Your task to perform on an android device: change the clock display to analog Image 0: 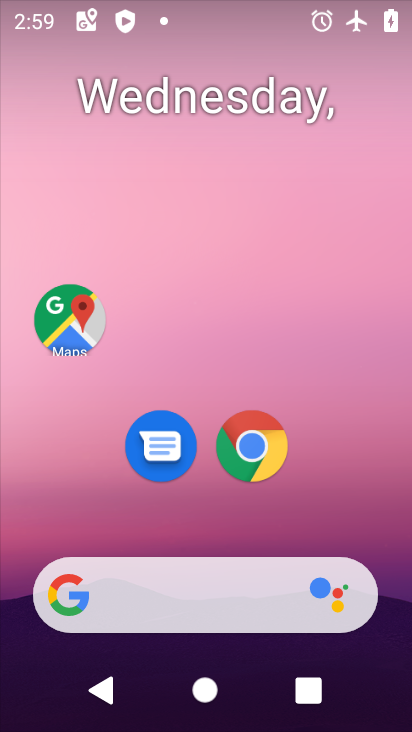
Step 0: drag from (182, 534) to (208, 258)
Your task to perform on an android device: change the clock display to analog Image 1: 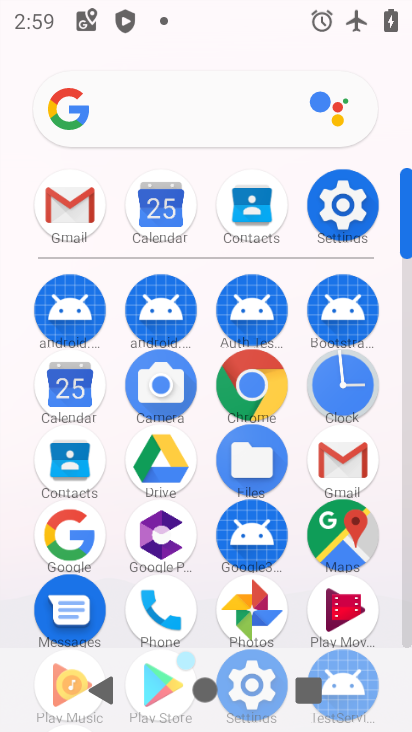
Step 1: click (356, 382)
Your task to perform on an android device: change the clock display to analog Image 2: 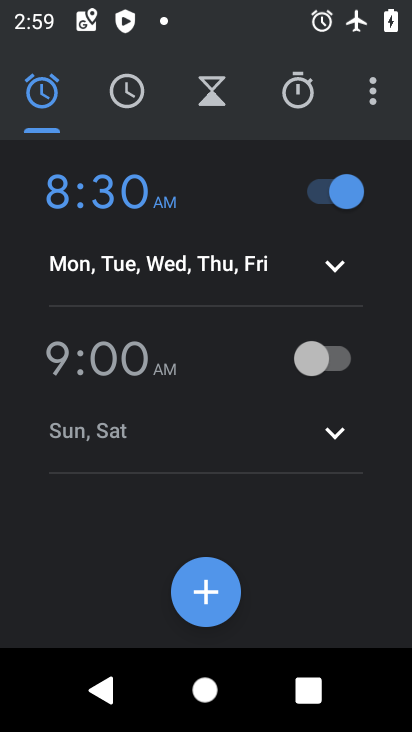
Step 2: click (366, 95)
Your task to perform on an android device: change the clock display to analog Image 3: 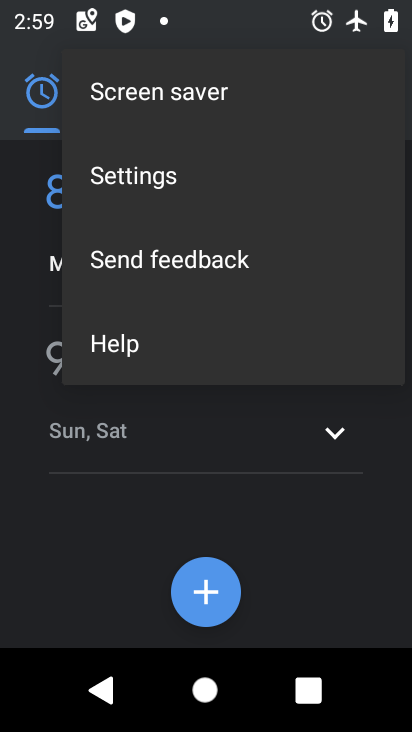
Step 3: click (171, 168)
Your task to perform on an android device: change the clock display to analog Image 4: 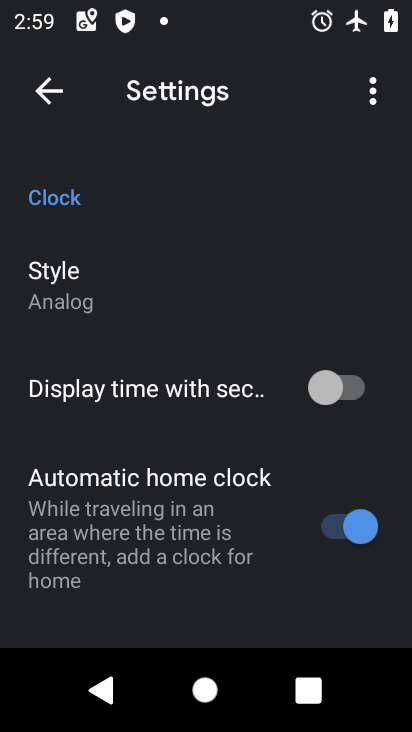
Step 4: click (125, 295)
Your task to perform on an android device: change the clock display to analog Image 5: 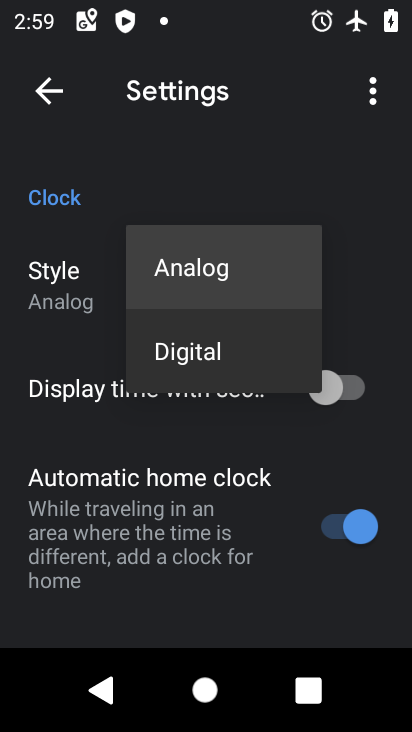
Step 5: task complete